Your task to perform on an android device: Open eBay Image 0: 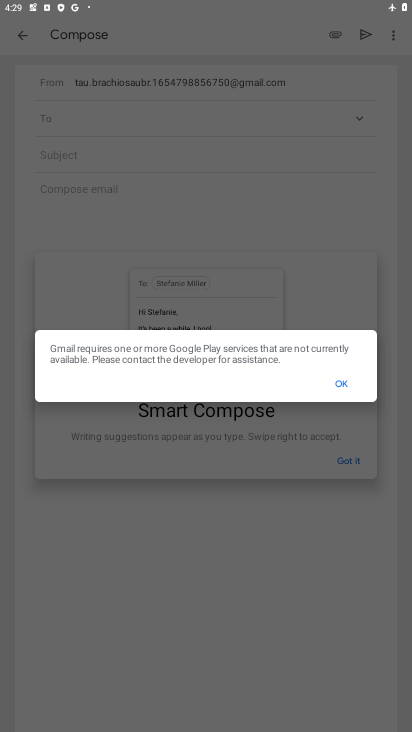
Step 0: press home button
Your task to perform on an android device: Open eBay Image 1: 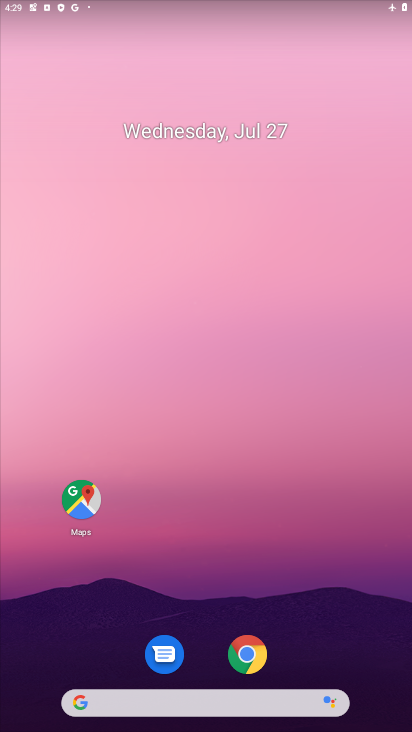
Step 1: drag from (197, 685) to (282, 313)
Your task to perform on an android device: Open eBay Image 2: 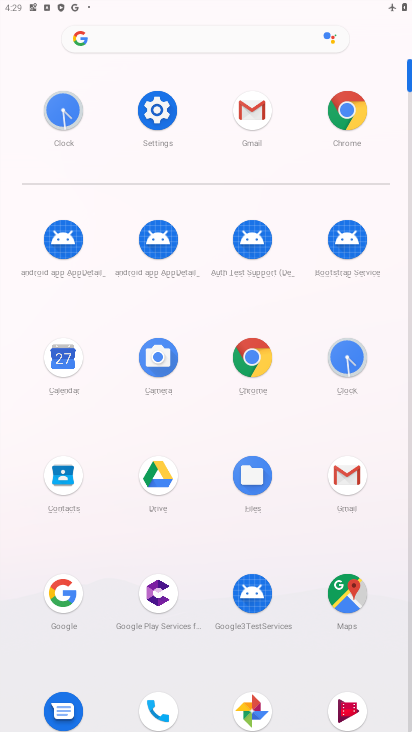
Step 2: click (75, 592)
Your task to perform on an android device: Open eBay Image 3: 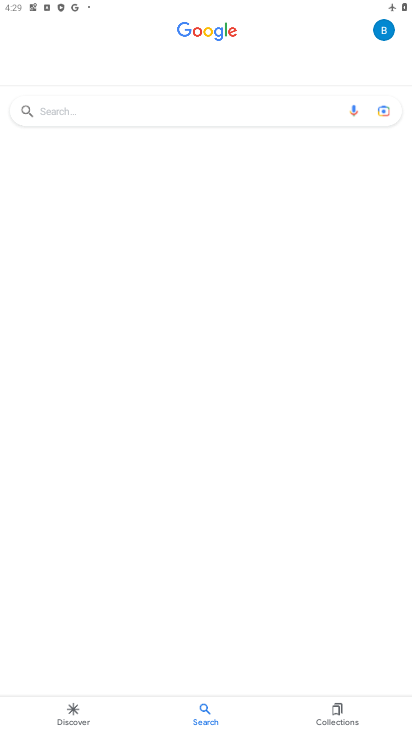
Step 3: click (80, 116)
Your task to perform on an android device: Open eBay Image 4: 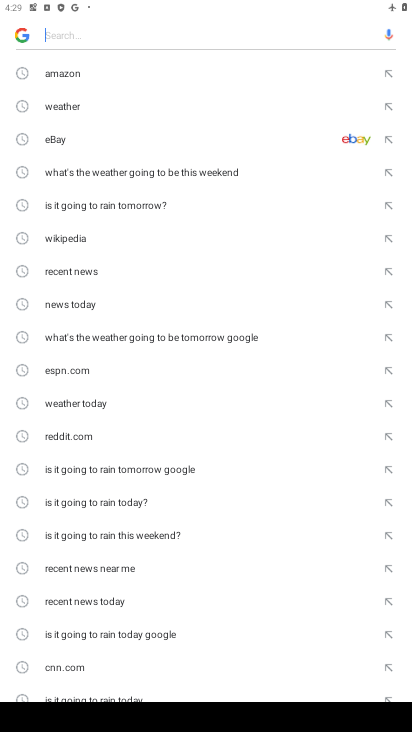
Step 4: click (80, 137)
Your task to perform on an android device: Open eBay Image 5: 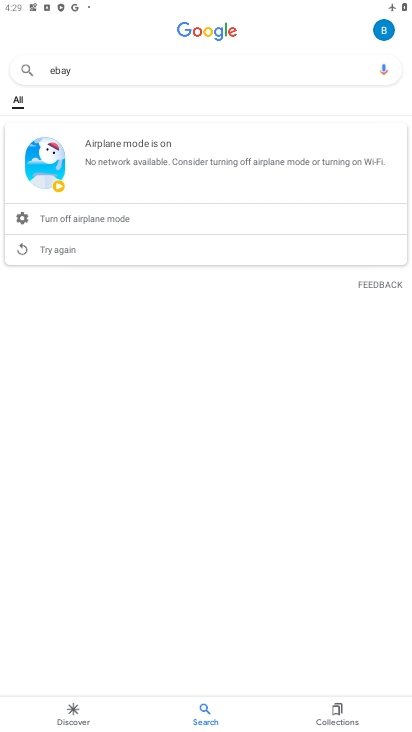
Step 5: task complete